Your task to perform on an android device: open device folders in google photos Image 0: 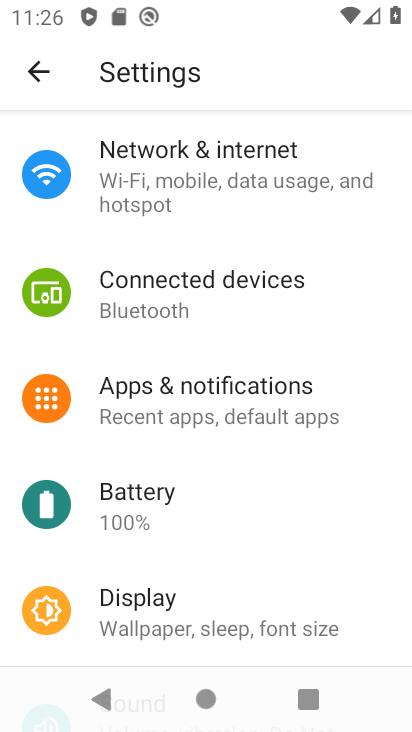
Step 0: press home button
Your task to perform on an android device: open device folders in google photos Image 1: 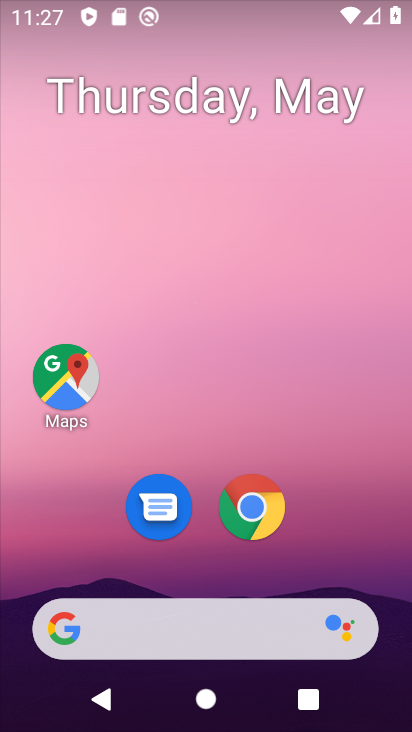
Step 1: drag from (247, 510) to (268, 35)
Your task to perform on an android device: open device folders in google photos Image 2: 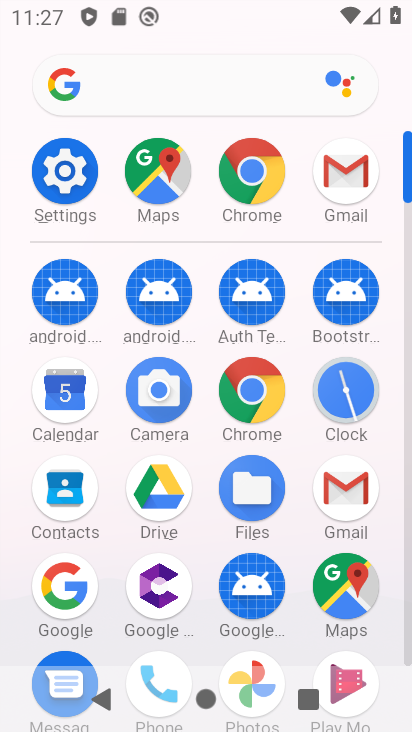
Step 2: drag from (316, 483) to (335, 129)
Your task to perform on an android device: open device folders in google photos Image 3: 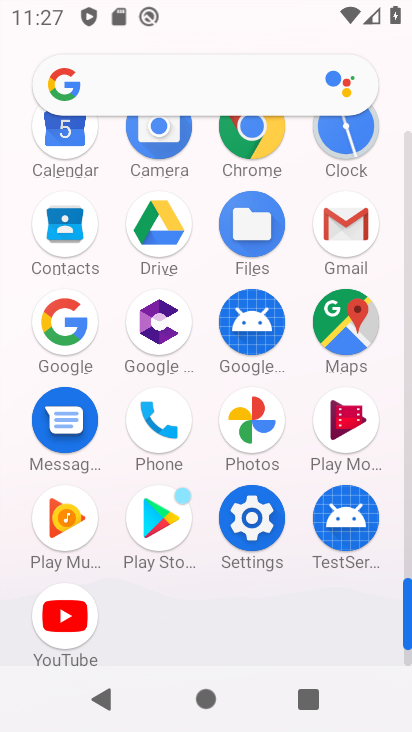
Step 3: click (267, 443)
Your task to perform on an android device: open device folders in google photos Image 4: 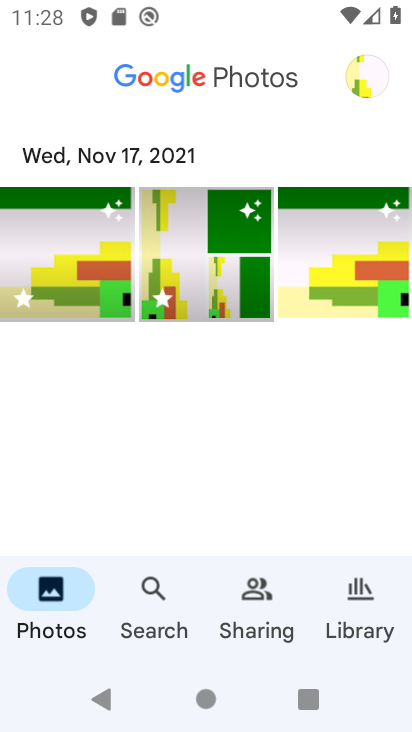
Step 4: click (364, 89)
Your task to perform on an android device: open device folders in google photos Image 5: 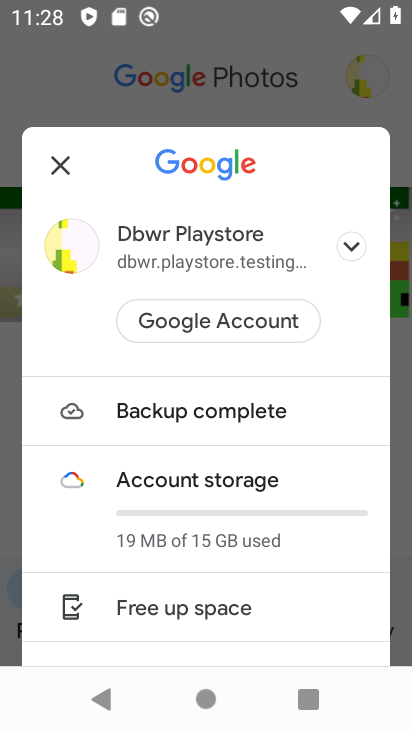
Step 5: task complete